Your task to perform on an android device: Go to calendar. Show me events next week Image 0: 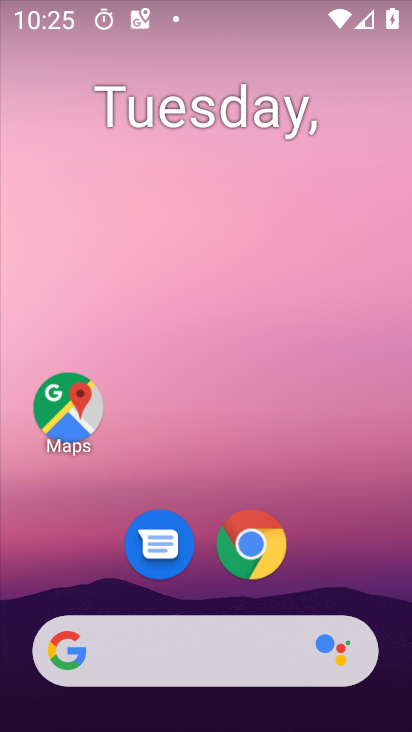
Step 0: drag from (391, 624) to (294, 144)
Your task to perform on an android device: Go to calendar. Show me events next week Image 1: 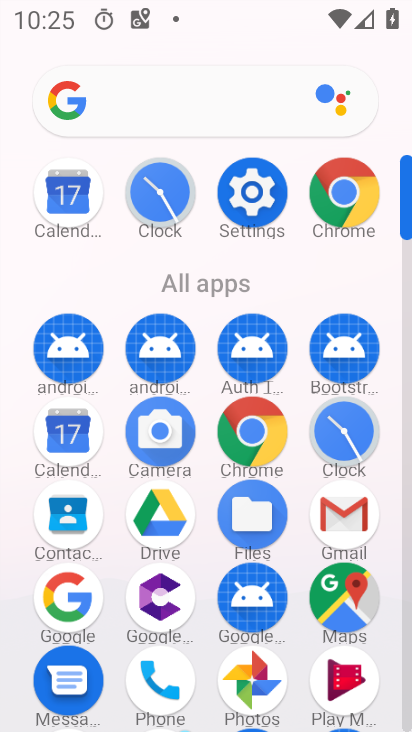
Step 1: click (63, 205)
Your task to perform on an android device: Go to calendar. Show me events next week Image 2: 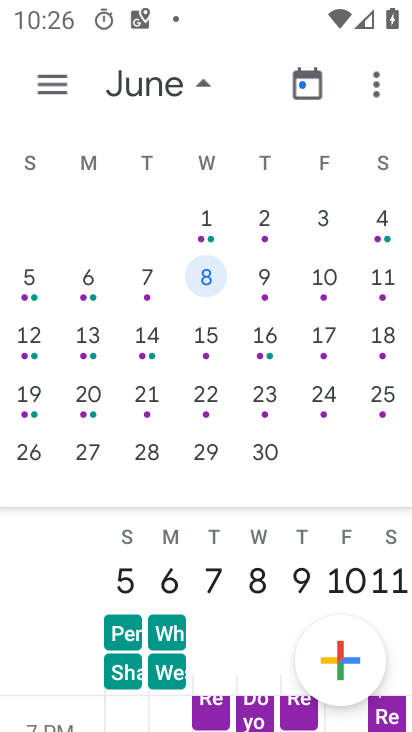
Step 2: click (201, 83)
Your task to perform on an android device: Go to calendar. Show me events next week Image 3: 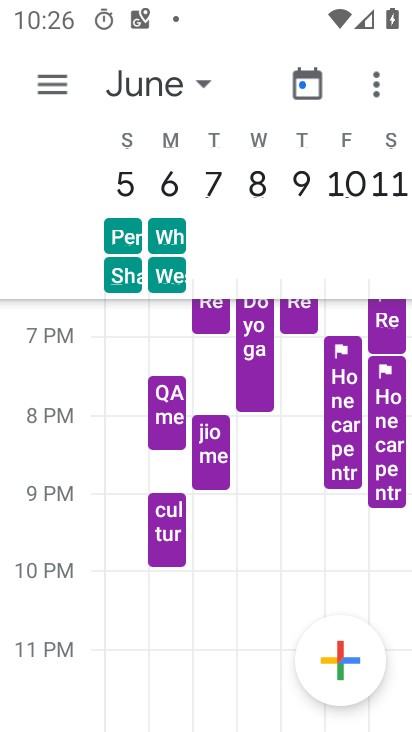
Step 3: click (201, 83)
Your task to perform on an android device: Go to calendar. Show me events next week Image 4: 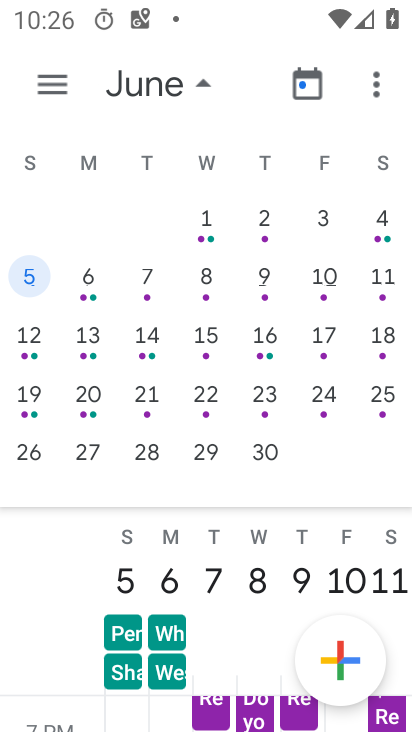
Step 4: drag from (41, 370) to (403, 349)
Your task to perform on an android device: Go to calendar. Show me events next week Image 5: 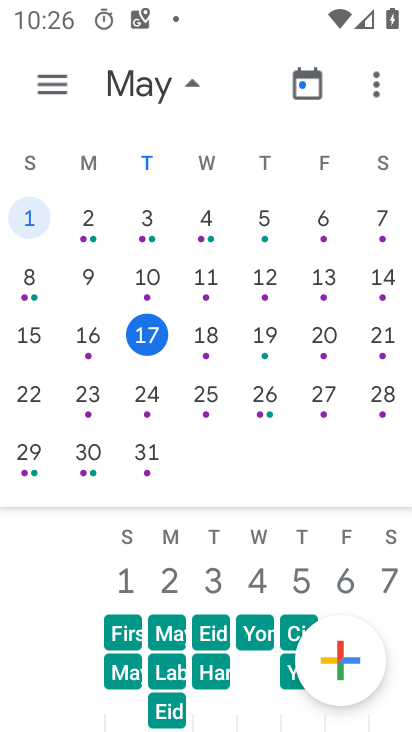
Step 5: click (198, 394)
Your task to perform on an android device: Go to calendar. Show me events next week Image 6: 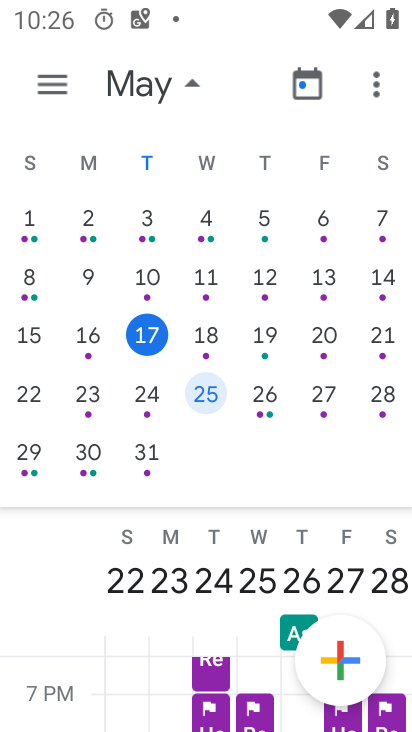
Step 6: click (191, 102)
Your task to perform on an android device: Go to calendar. Show me events next week Image 7: 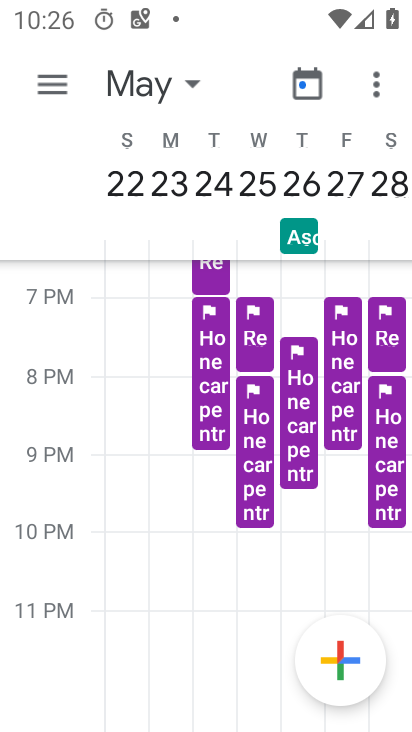
Step 7: task complete